Your task to perform on an android device: turn smart compose on in the gmail app Image 0: 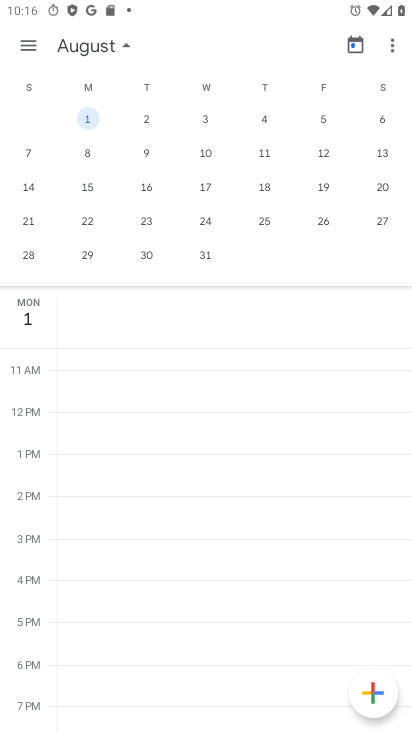
Step 0: press home button
Your task to perform on an android device: turn smart compose on in the gmail app Image 1: 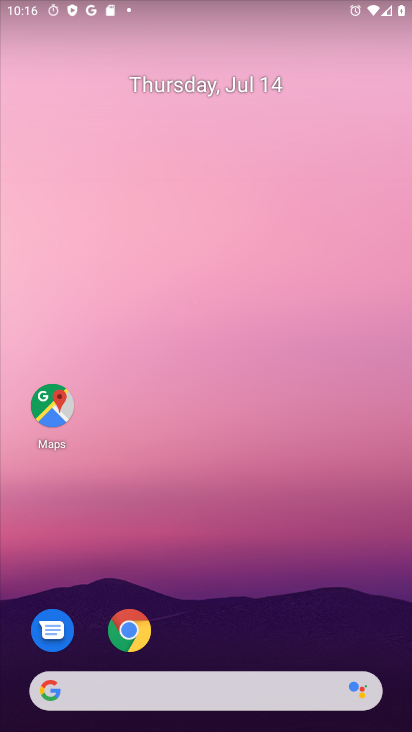
Step 1: drag from (15, 715) to (275, 9)
Your task to perform on an android device: turn smart compose on in the gmail app Image 2: 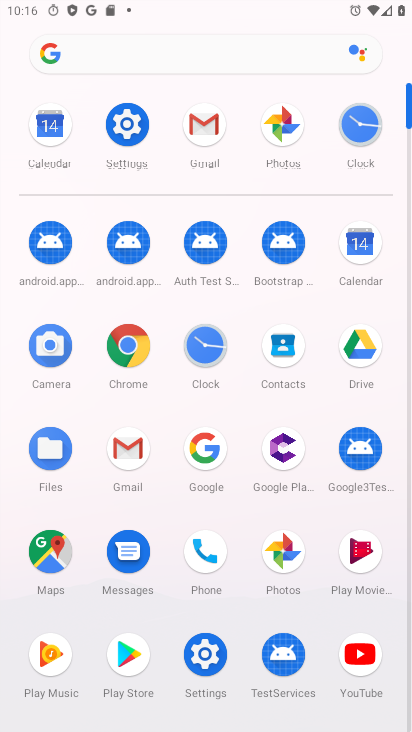
Step 2: click (121, 454)
Your task to perform on an android device: turn smart compose on in the gmail app Image 3: 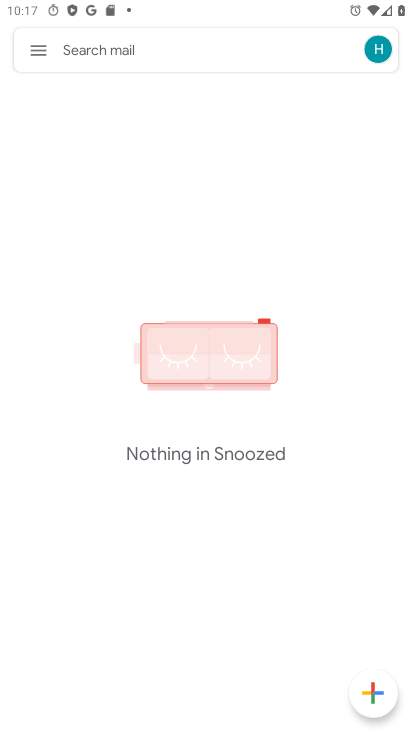
Step 3: click (57, 57)
Your task to perform on an android device: turn smart compose on in the gmail app Image 4: 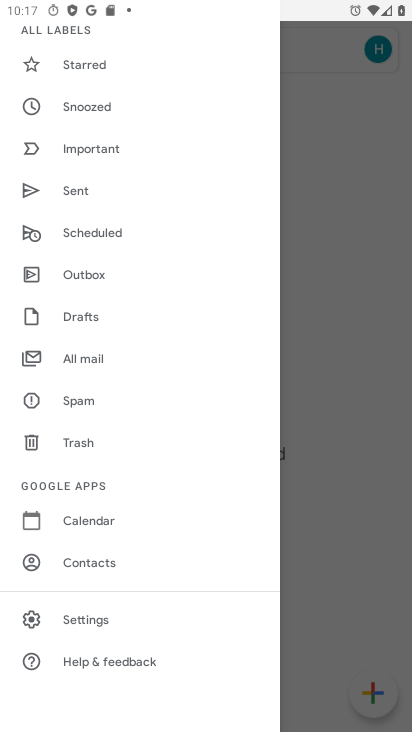
Step 4: click (82, 608)
Your task to perform on an android device: turn smart compose on in the gmail app Image 5: 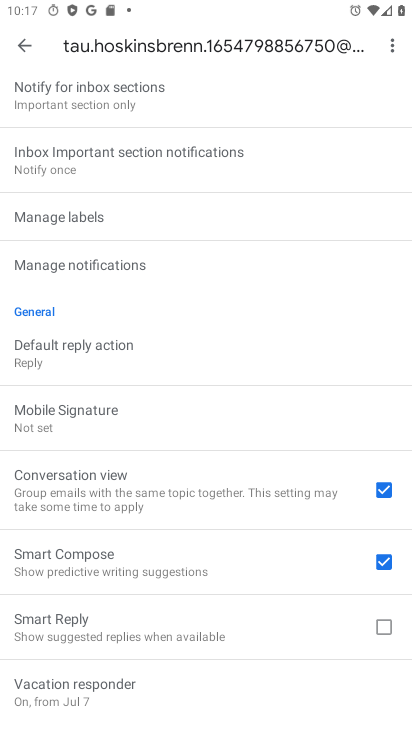
Step 5: task complete